Your task to perform on an android device: Open the phone app and click the voicemail tab. Image 0: 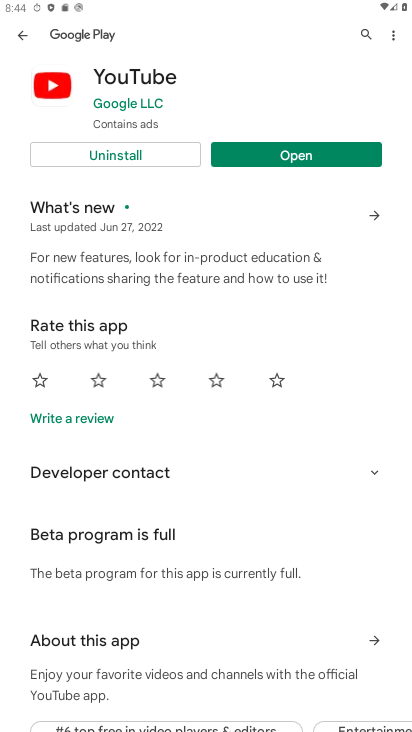
Step 0: press home button
Your task to perform on an android device: Open the phone app and click the voicemail tab. Image 1: 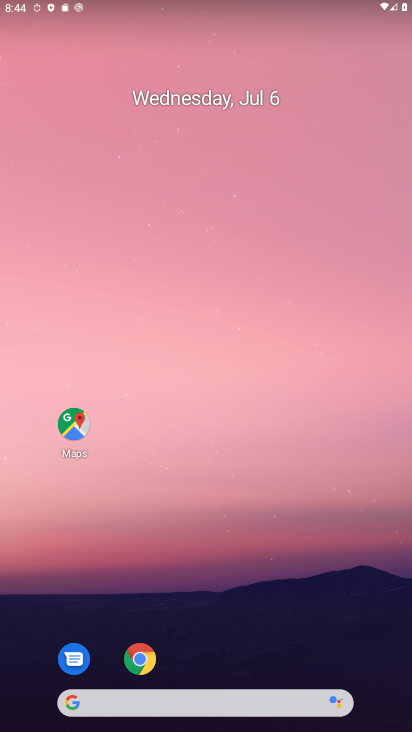
Step 1: drag from (324, 631) to (327, 216)
Your task to perform on an android device: Open the phone app and click the voicemail tab. Image 2: 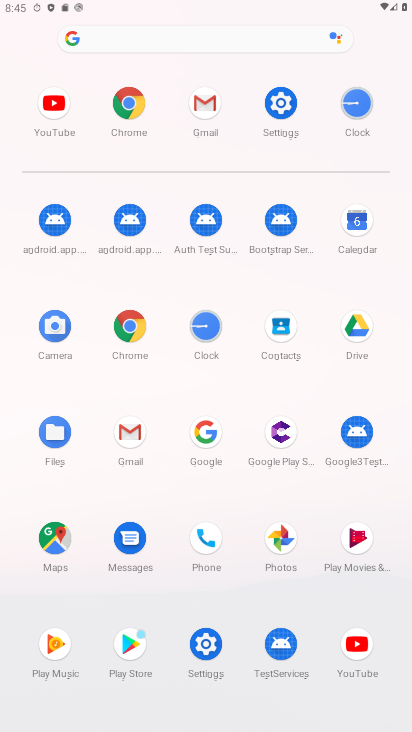
Step 2: click (212, 543)
Your task to perform on an android device: Open the phone app and click the voicemail tab. Image 3: 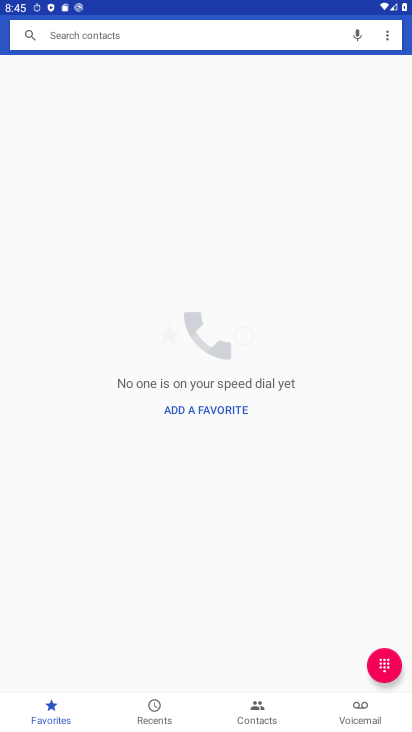
Step 3: click (366, 717)
Your task to perform on an android device: Open the phone app and click the voicemail tab. Image 4: 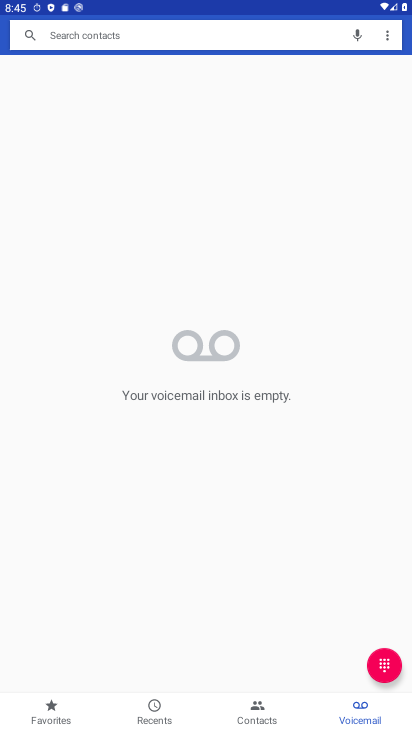
Step 4: task complete